Your task to perform on an android device: turn off improve location accuracy Image 0: 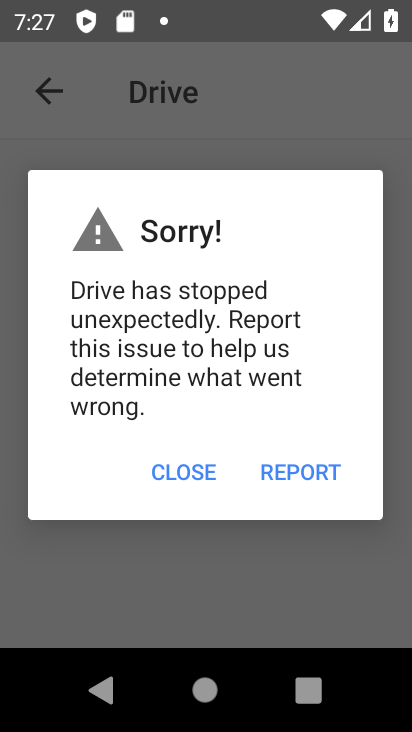
Step 0: press home button
Your task to perform on an android device: turn off improve location accuracy Image 1: 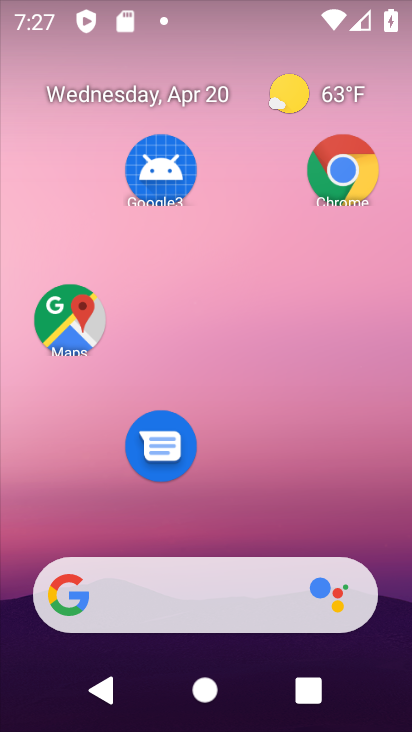
Step 1: drag from (205, 521) to (193, 171)
Your task to perform on an android device: turn off improve location accuracy Image 2: 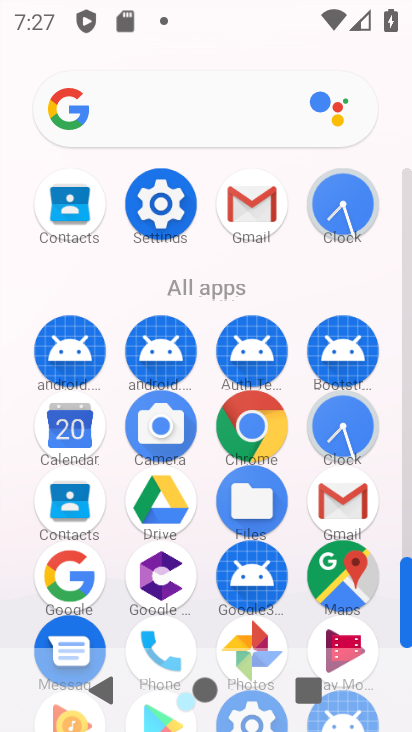
Step 2: click (160, 213)
Your task to perform on an android device: turn off improve location accuracy Image 3: 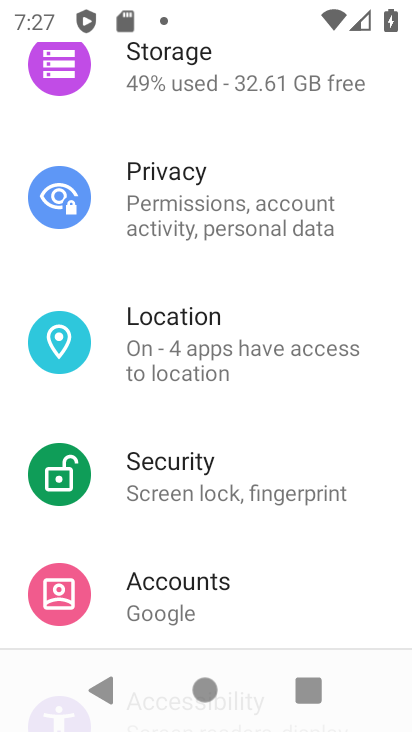
Step 3: click (186, 313)
Your task to perform on an android device: turn off improve location accuracy Image 4: 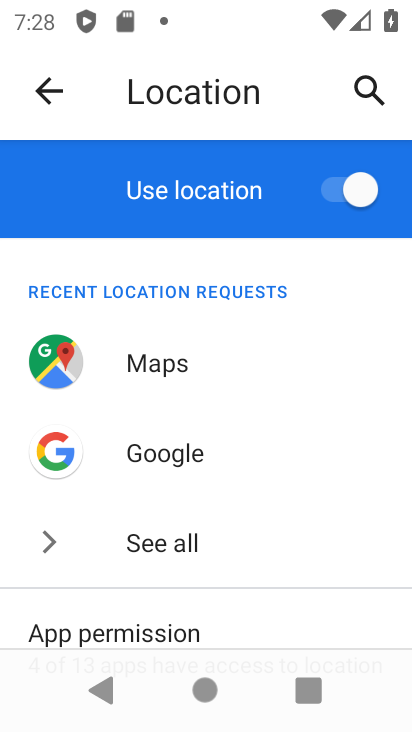
Step 4: drag from (212, 507) to (229, 164)
Your task to perform on an android device: turn off improve location accuracy Image 5: 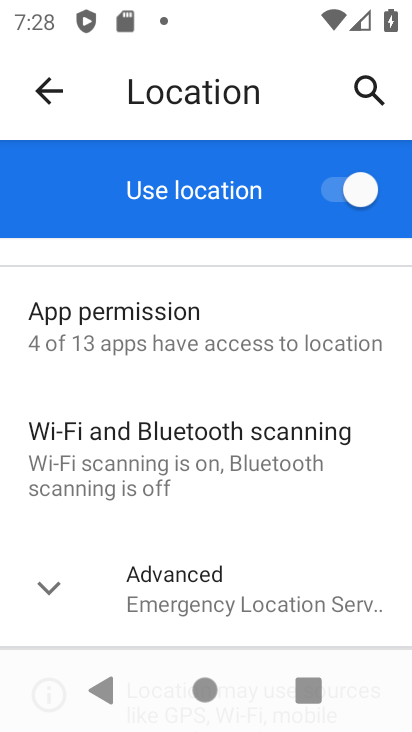
Step 5: click (59, 587)
Your task to perform on an android device: turn off improve location accuracy Image 6: 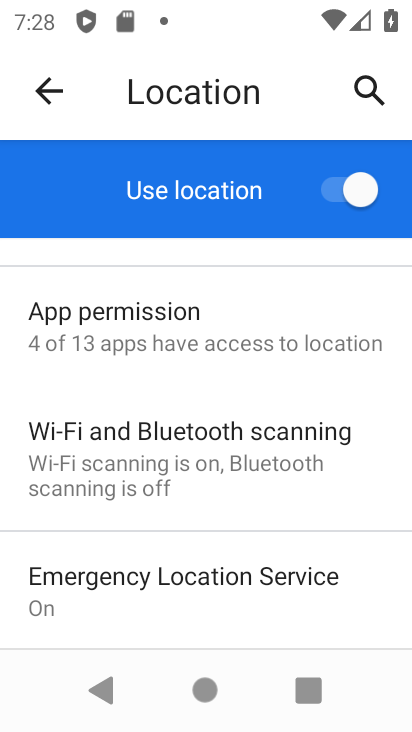
Step 6: drag from (203, 526) to (196, 188)
Your task to perform on an android device: turn off improve location accuracy Image 7: 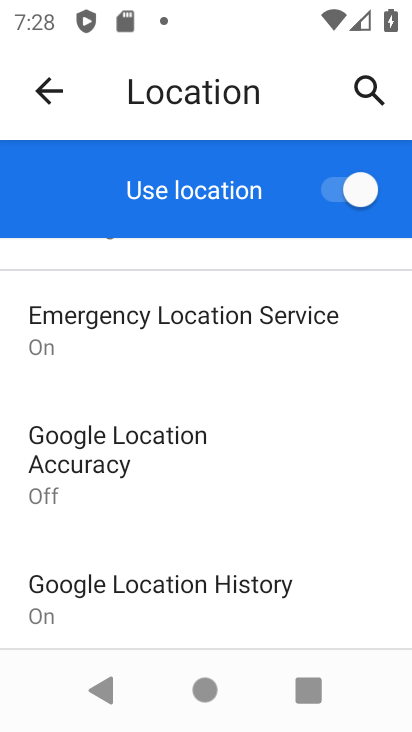
Step 7: click (82, 445)
Your task to perform on an android device: turn off improve location accuracy Image 8: 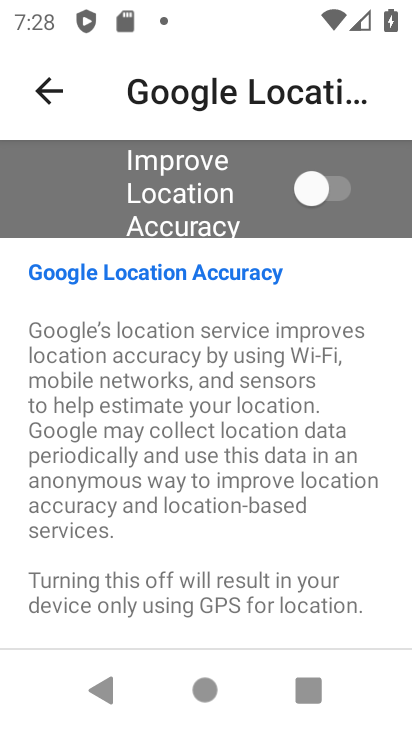
Step 8: task complete